Your task to perform on an android device: Go to internet settings Image 0: 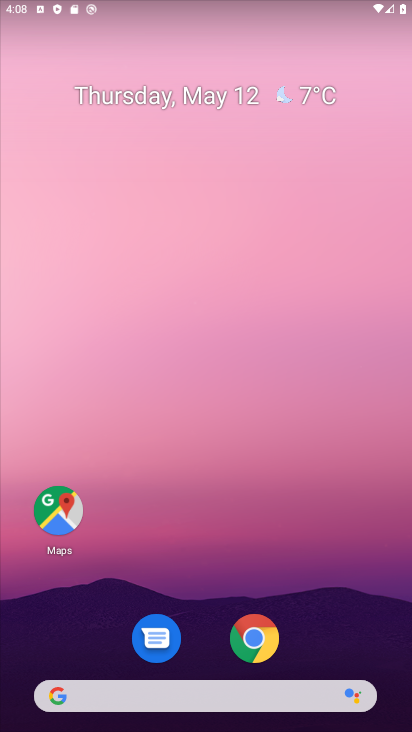
Step 0: drag from (330, 609) to (249, 64)
Your task to perform on an android device: Go to internet settings Image 1: 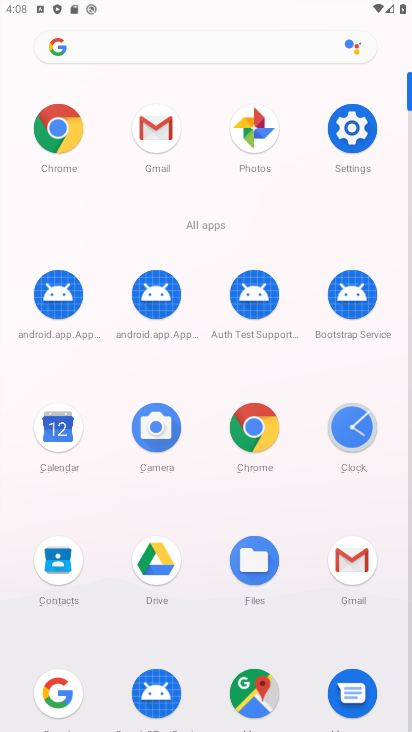
Step 1: click (351, 121)
Your task to perform on an android device: Go to internet settings Image 2: 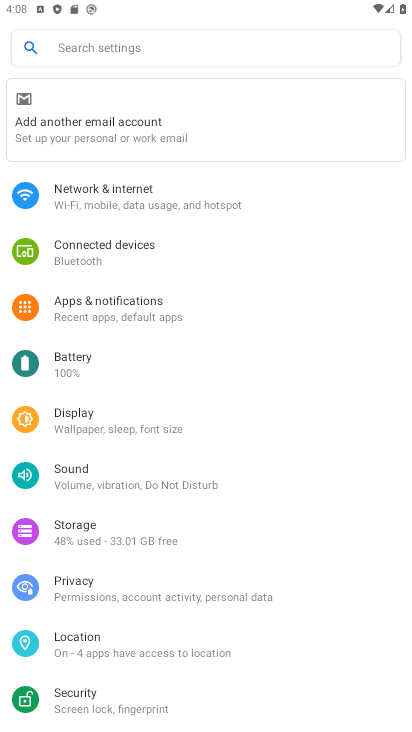
Step 2: click (152, 204)
Your task to perform on an android device: Go to internet settings Image 3: 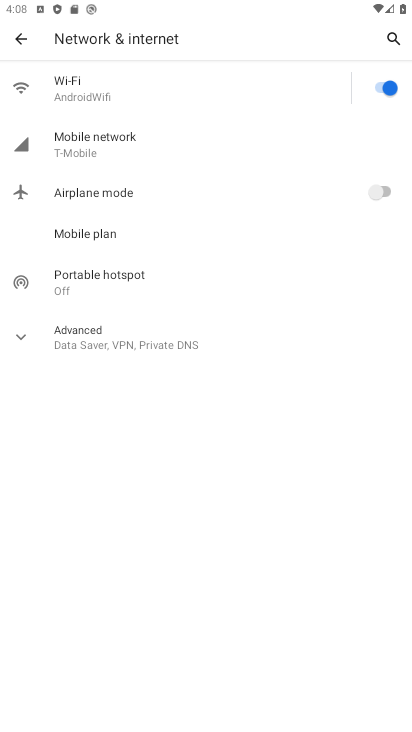
Step 3: task complete